Your task to perform on an android device: Is it going to rain this weekend? Image 0: 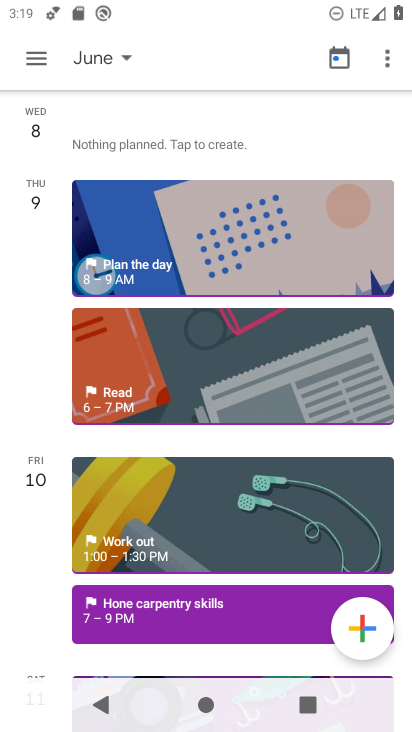
Step 0: press back button
Your task to perform on an android device: Is it going to rain this weekend? Image 1: 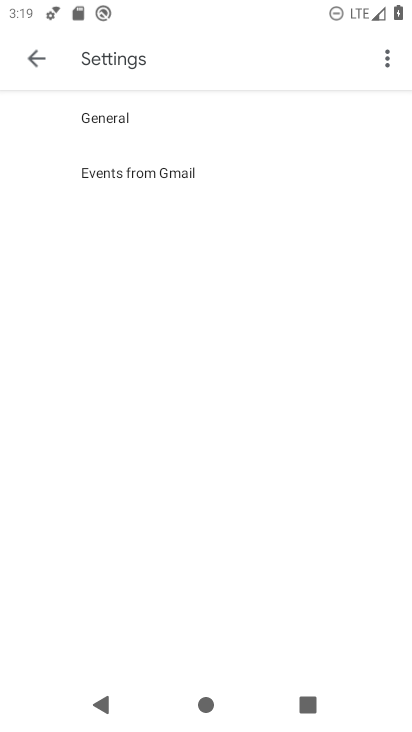
Step 1: press home button
Your task to perform on an android device: Is it going to rain this weekend? Image 2: 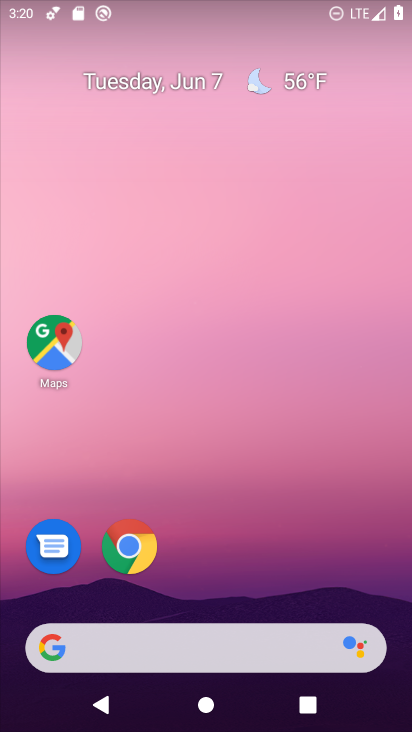
Step 2: drag from (277, 531) to (244, 25)
Your task to perform on an android device: Is it going to rain this weekend? Image 3: 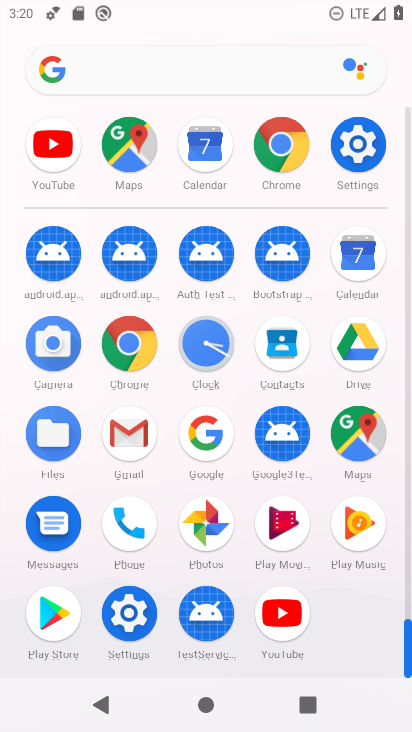
Step 3: click (351, 254)
Your task to perform on an android device: Is it going to rain this weekend? Image 4: 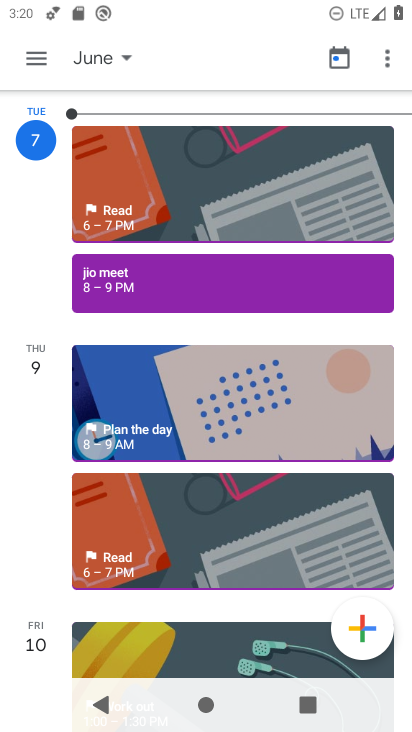
Step 4: press back button
Your task to perform on an android device: Is it going to rain this weekend? Image 5: 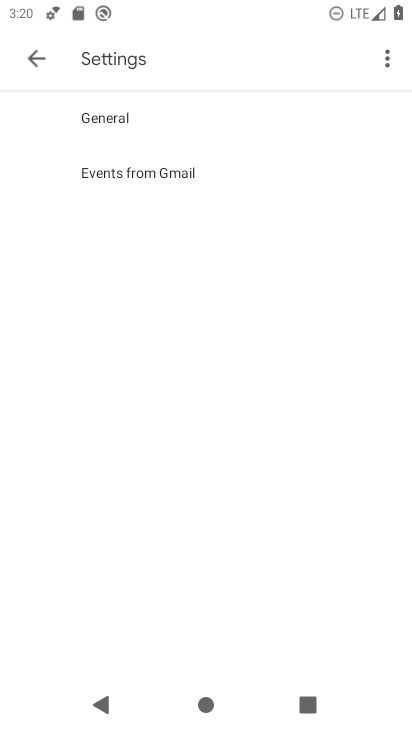
Step 5: press home button
Your task to perform on an android device: Is it going to rain this weekend? Image 6: 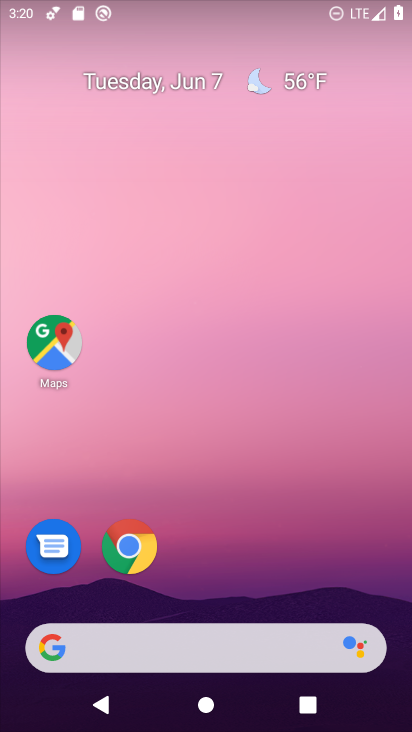
Step 6: drag from (272, 596) to (265, 52)
Your task to perform on an android device: Is it going to rain this weekend? Image 7: 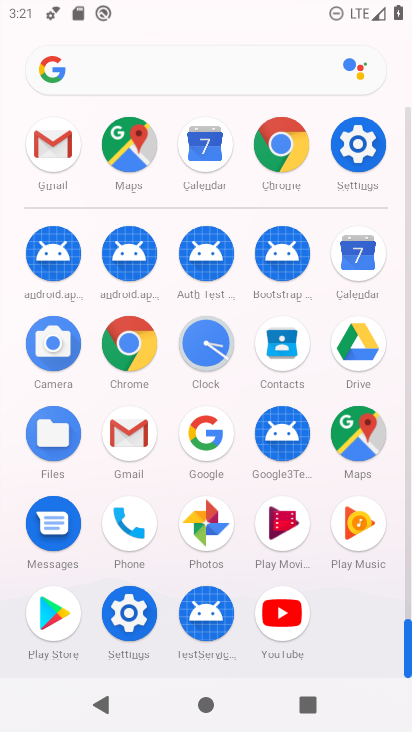
Step 7: click (129, 340)
Your task to perform on an android device: Is it going to rain this weekend? Image 8: 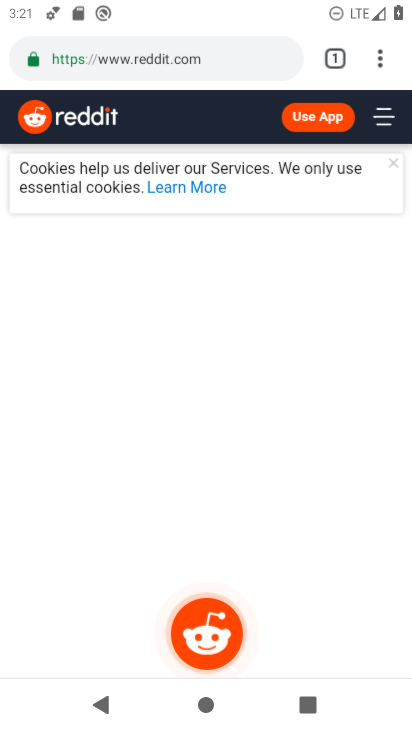
Step 8: click (146, 47)
Your task to perform on an android device: Is it going to rain this weekend? Image 9: 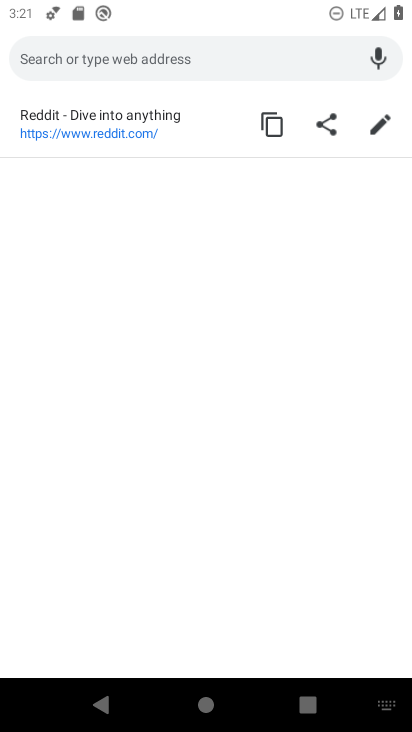
Step 9: type "Is it going to rain this weekend?"
Your task to perform on an android device: Is it going to rain this weekend? Image 10: 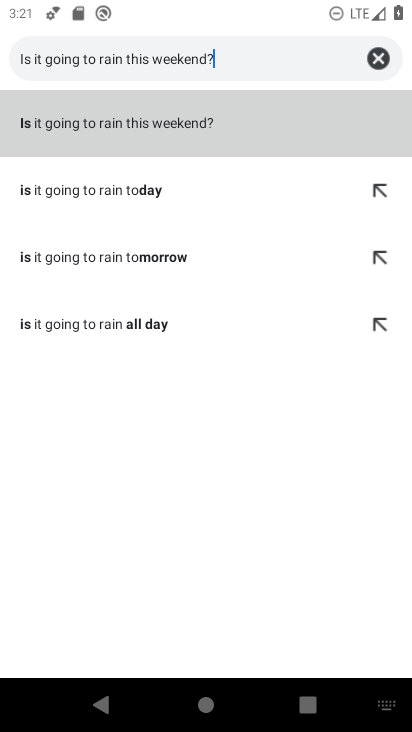
Step 10: type ""
Your task to perform on an android device: Is it going to rain this weekend? Image 11: 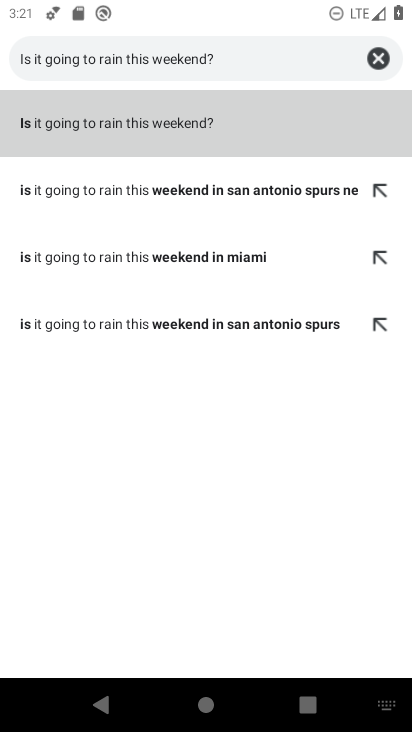
Step 11: click (181, 116)
Your task to perform on an android device: Is it going to rain this weekend? Image 12: 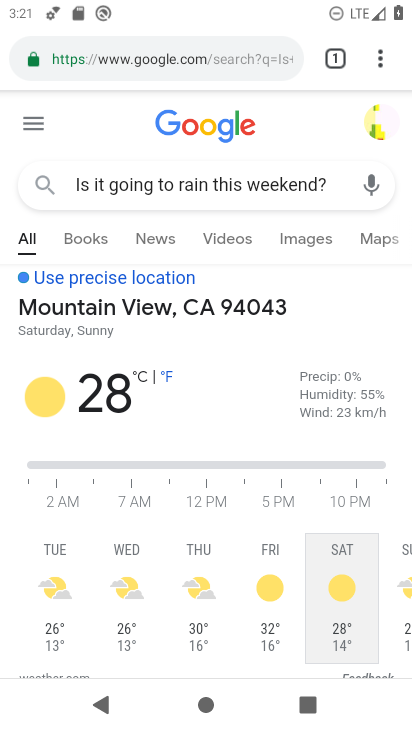
Step 12: task complete